Your task to perform on an android device: When is my next appointment? Image 0: 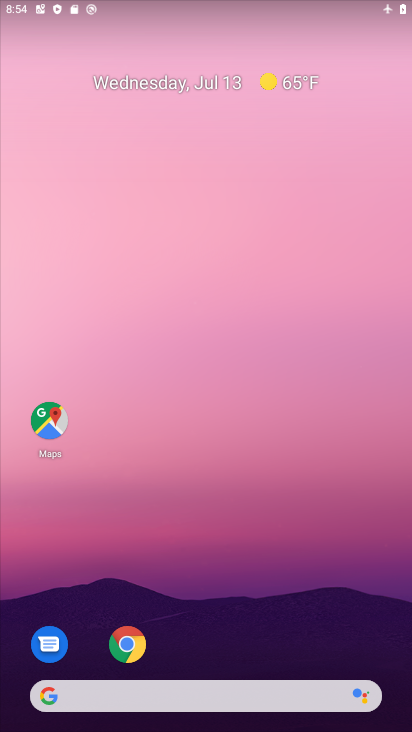
Step 0: drag from (236, 658) to (199, 157)
Your task to perform on an android device: When is my next appointment? Image 1: 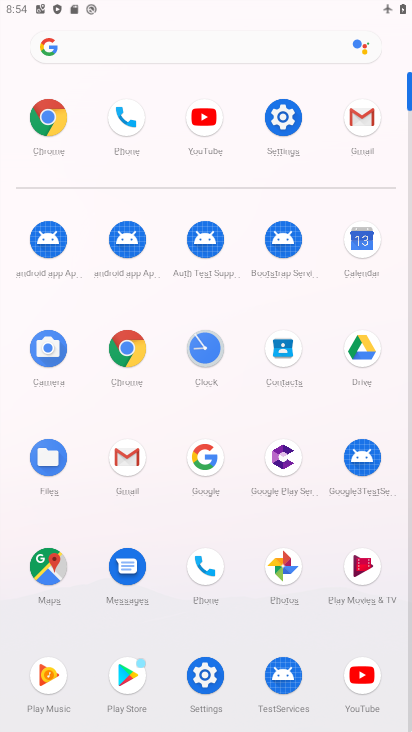
Step 1: click (354, 256)
Your task to perform on an android device: When is my next appointment? Image 2: 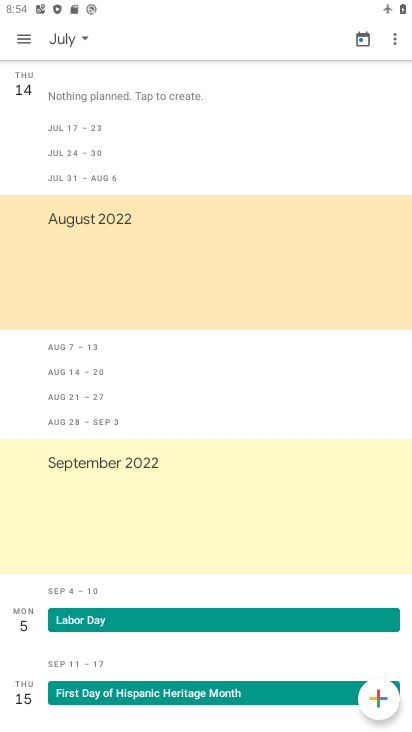
Step 2: click (52, 47)
Your task to perform on an android device: When is my next appointment? Image 3: 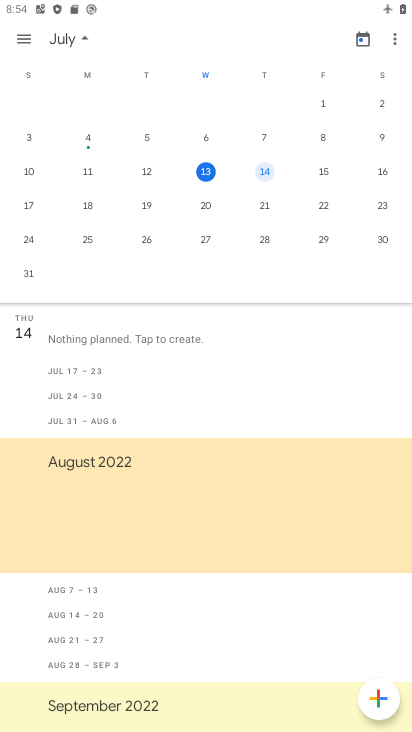
Step 3: task complete